Your task to perform on an android device: Go to battery settings Image 0: 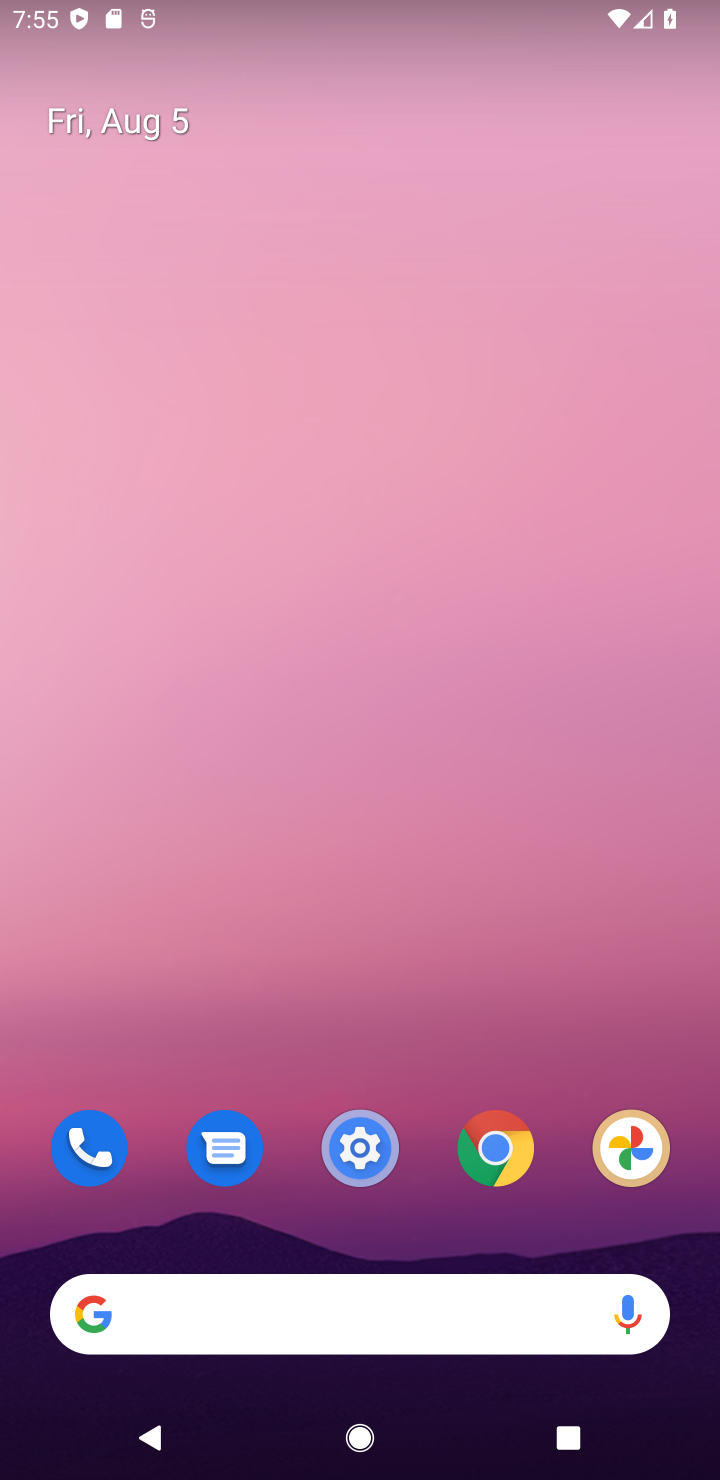
Step 0: click (328, 1169)
Your task to perform on an android device: Go to battery settings Image 1: 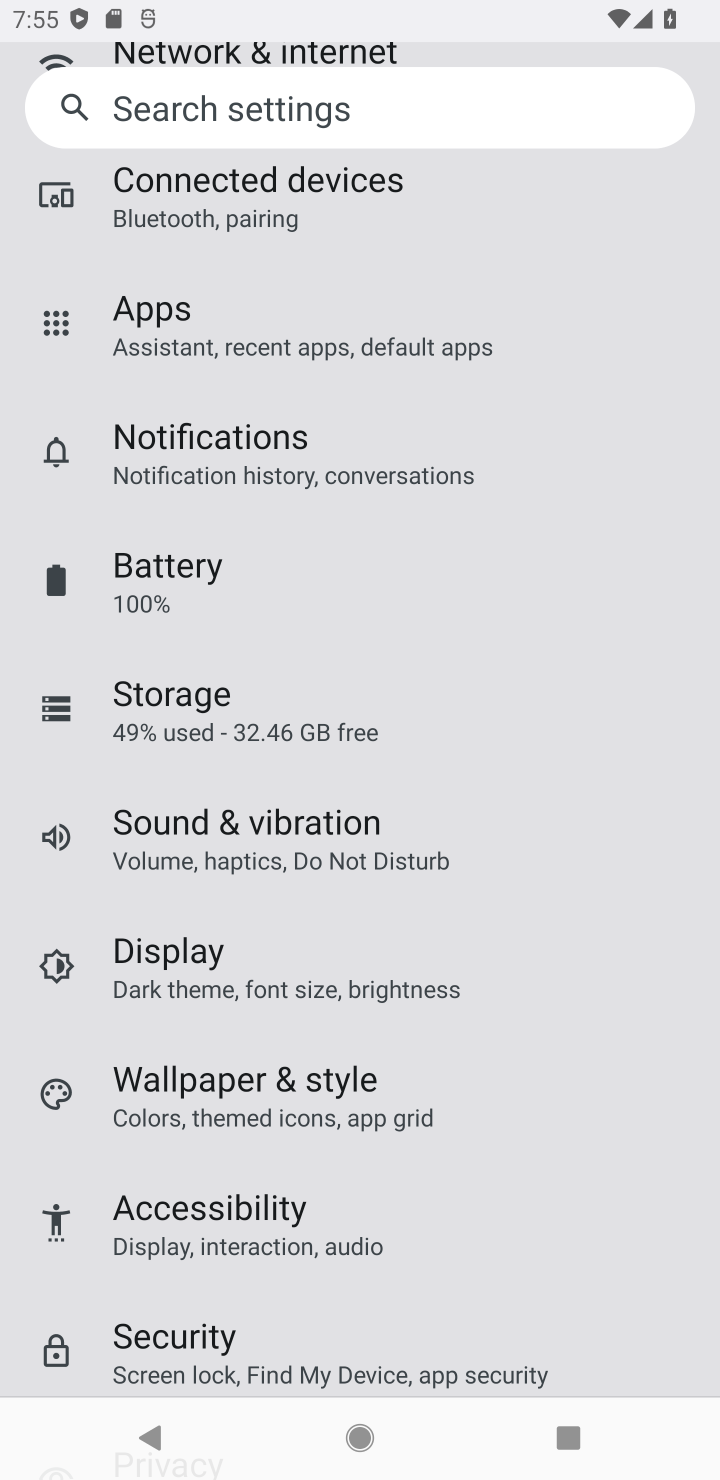
Step 1: click (250, 578)
Your task to perform on an android device: Go to battery settings Image 2: 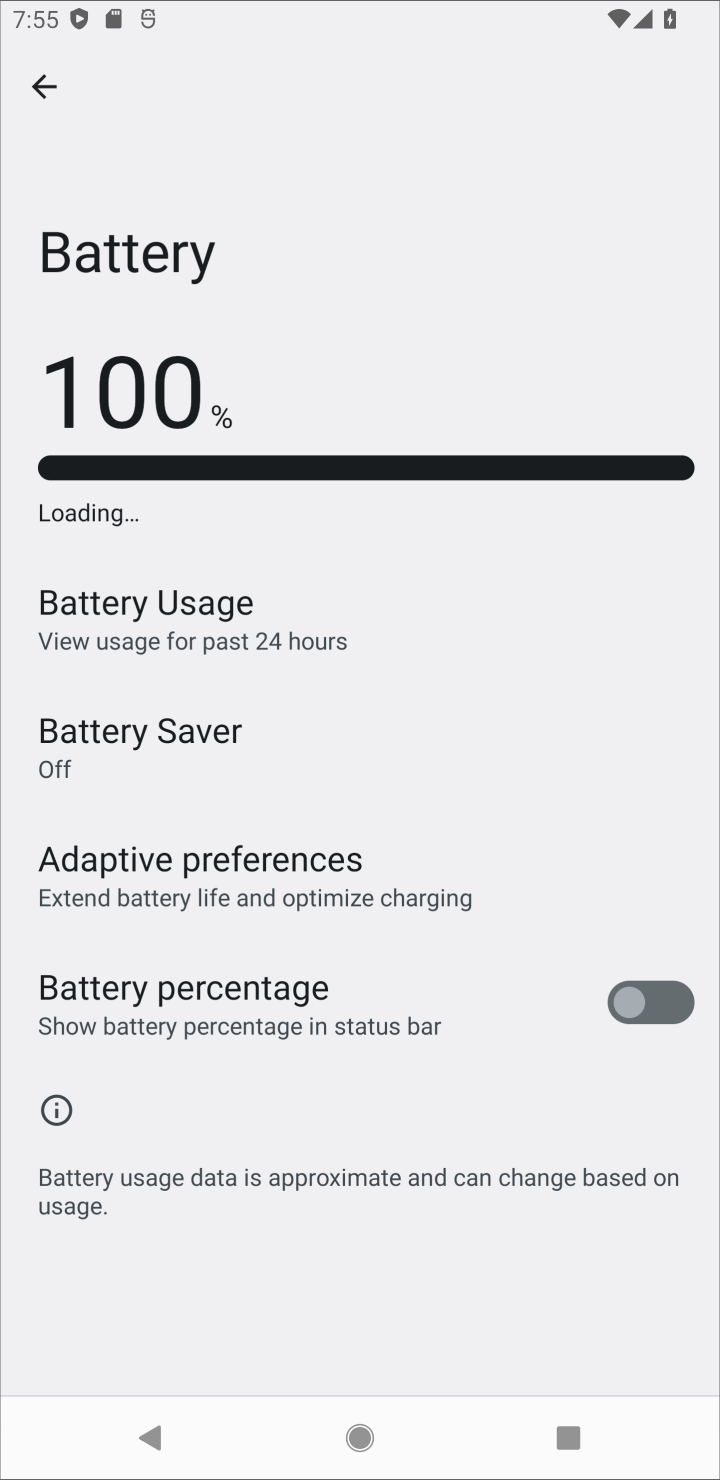
Step 2: task complete